Your task to perform on an android device: Go to ESPN.com Image 0: 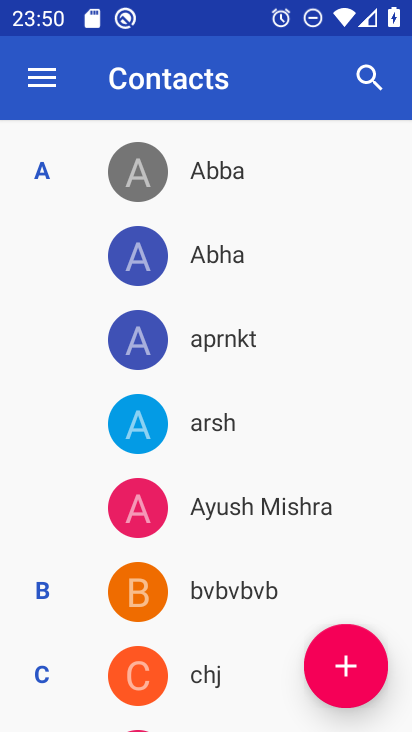
Step 0: press home button
Your task to perform on an android device: Go to ESPN.com Image 1: 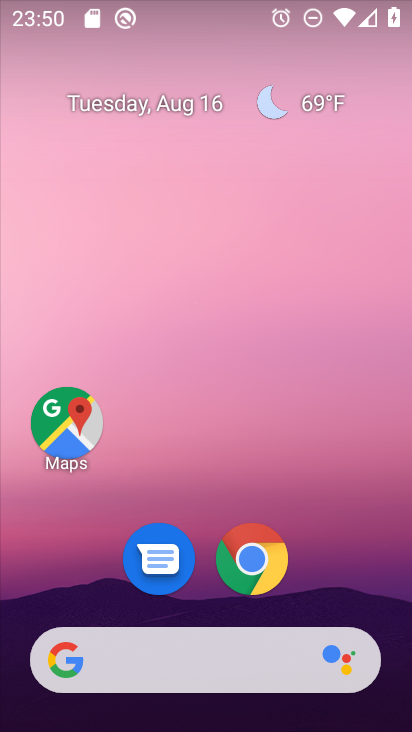
Step 1: click (249, 563)
Your task to perform on an android device: Go to ESPN.com Image 2: 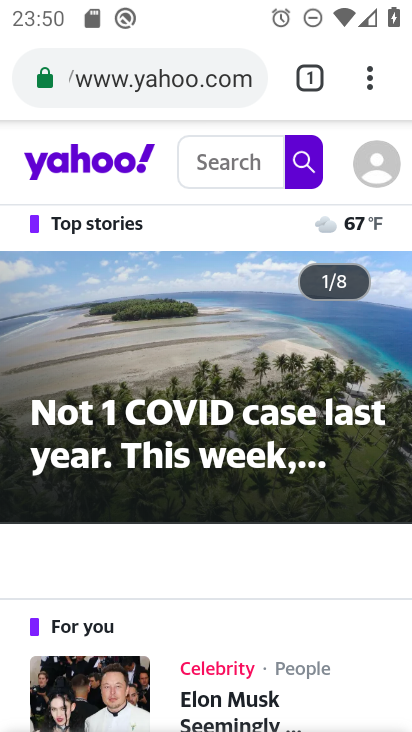
Step 2: click (225, 90)
Your task to perform on an android device: Go to ESPN.com Image 3: 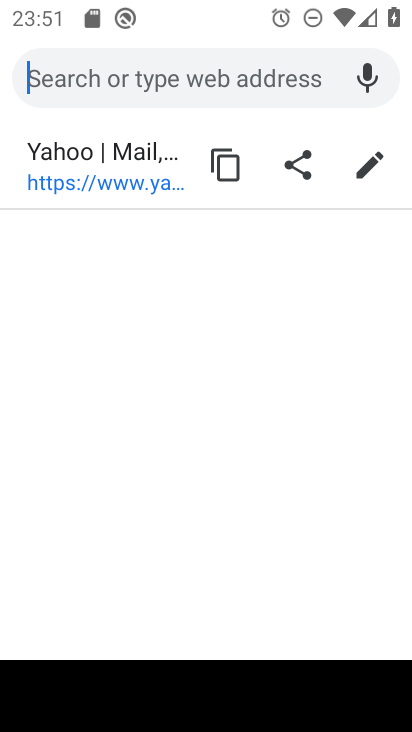
Step 3: type "ESPN.com"
Your task to perform on an android device: Go to ESPN.com Image 4: 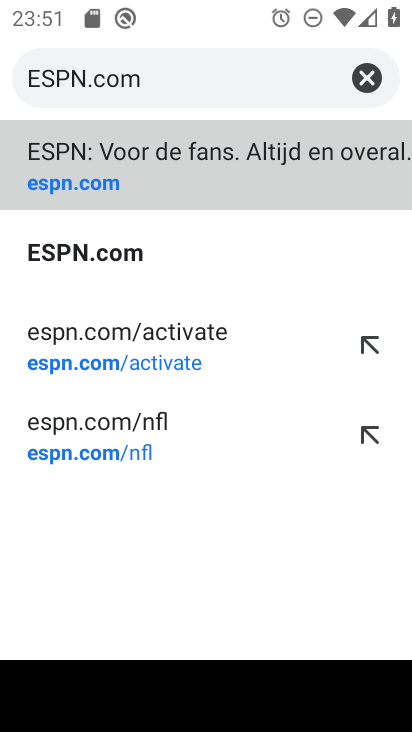
Step 4: click (128, 267)
Your task to perform on an android device: Go to ESPN.com Image 5: 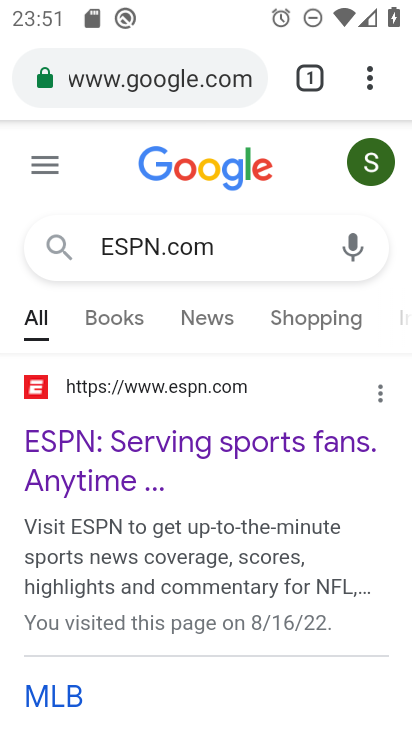
Step 5: click (180, 446)
Your task to perform on an android device: Go to ESPN.com Image 6: 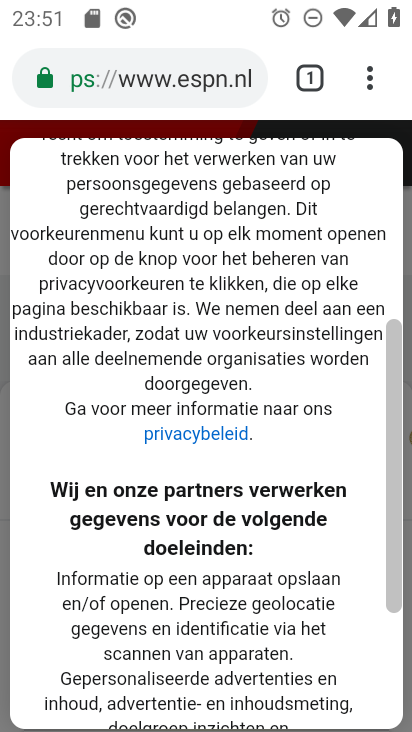
Step 6: task complete